Your task to perform on an android device: Open accessibility settings Image 0: 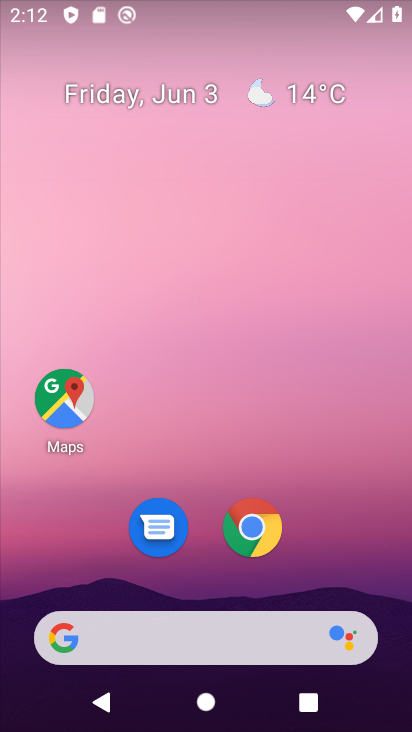
Step 0: drag from (169, 612) to (242, 233)
Your task to perform on an android device: Open accessibility settings Image 1: 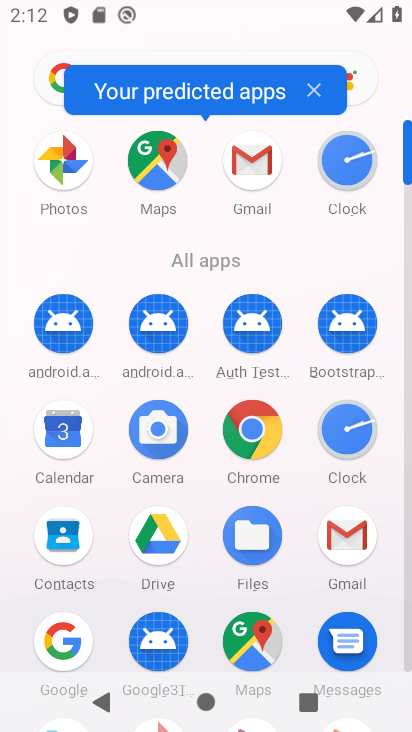
Step 1: drag from (205, 365) to (228, 35)
Your task to perform on an android device: Open accessibility settings Image 2: 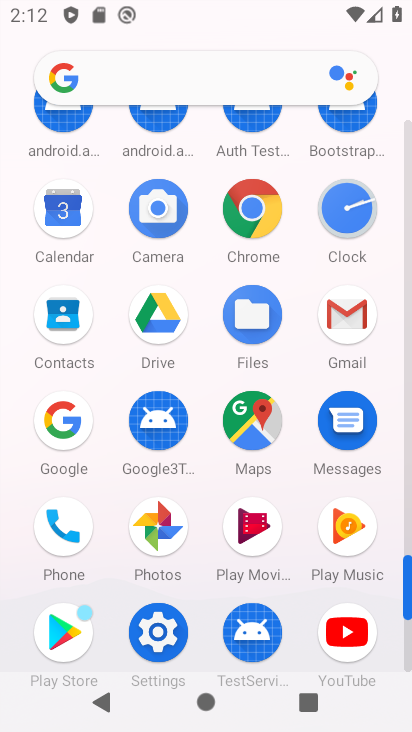
Step 2: click (143, 627)
Your task to perform on an android device: Open accessibility settings Image 3: 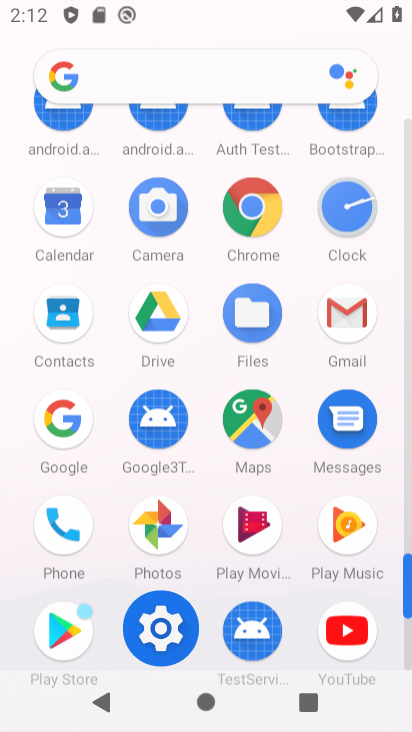
Step 3: click (154, 636)
Your task to perform on an android device: Open accessibility settings Image 4: 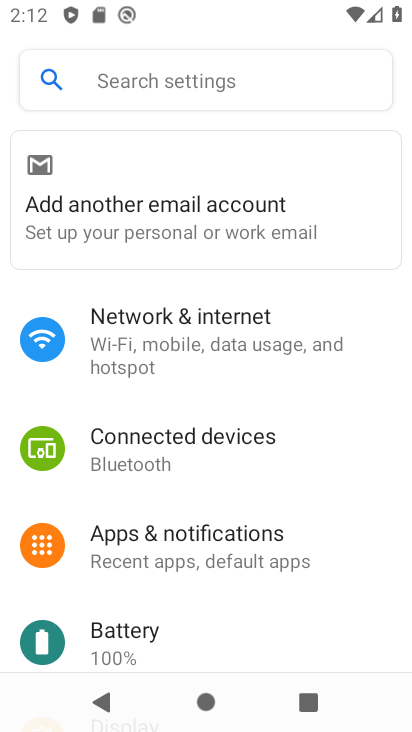
Step 4: drag from (185, 632) to (230, 213)
Your task to perform on an android device: Open accessibility settings Image 5: 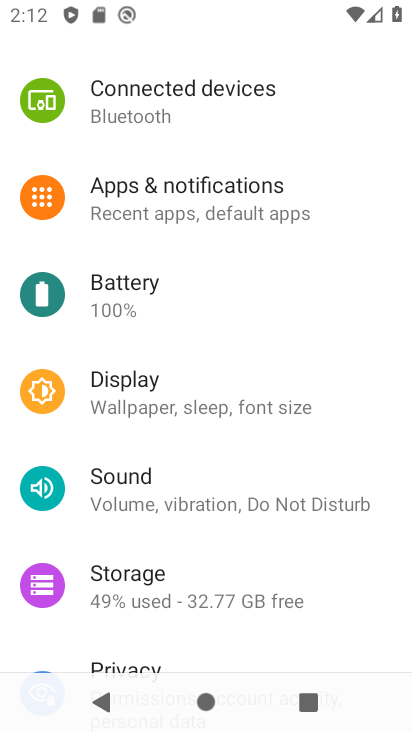
Step 5: drag from (196, 599) to (243, 133)
Your task to perform on an android device: Open accessibility settings Image 6: 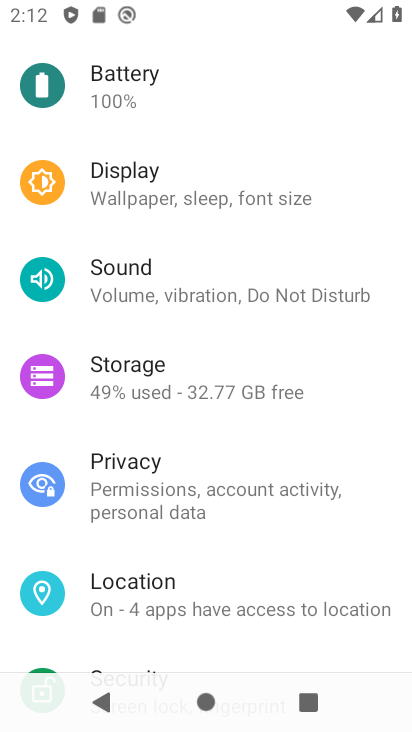
Step 6: drag from (158, 646) to (200, 229)
Your task to perform on an android device: Open accessibility settings Image 7: 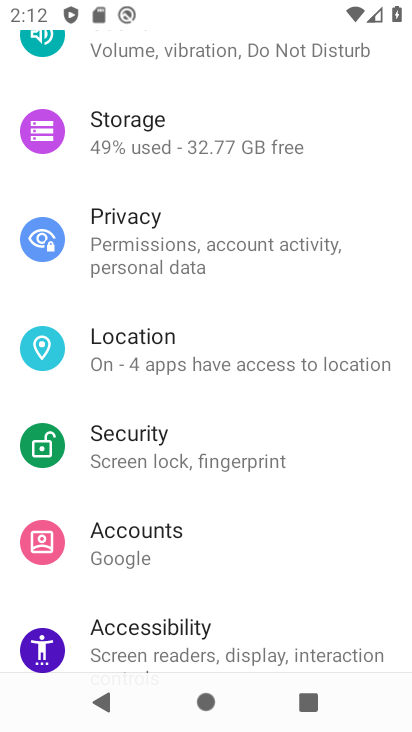
Step 7: click (138, 653)
Your task to perform on an android device: Open accessibility settings Image 8: 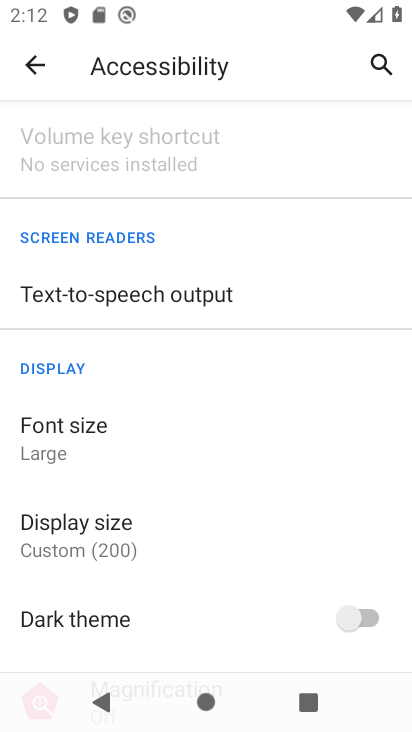
Step 8: click (244, 189)
Your task to perform on an android device: Open accessibility settings Image 9: 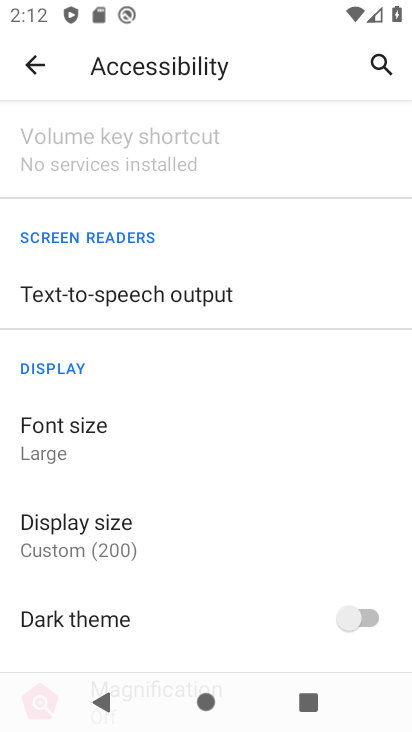
Step 9: task complete